Your task to perform on an android device: open a new tab in the chrome app Image 0: 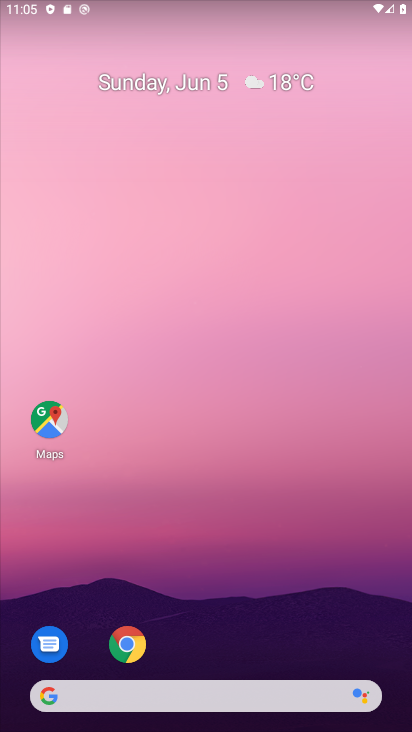
Step 0: drag from (308, 719) to (270, 207)
Your task to perform on an android device: open a new tab in the chrome app Image 1: 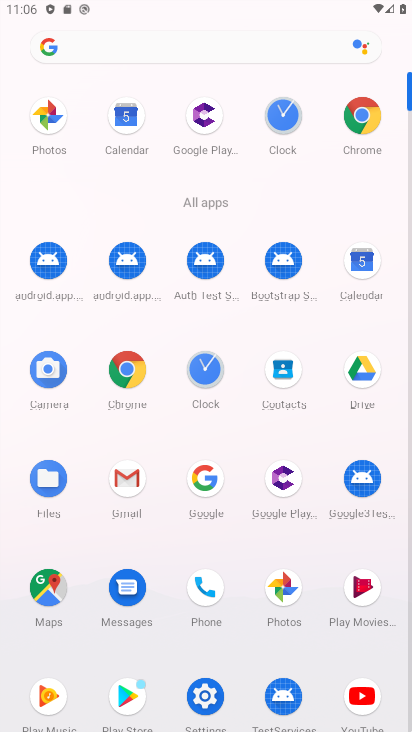
Step 1: click (125, 385)
Your task to perform on an android device: open a new tab in the chrome app Image 2: 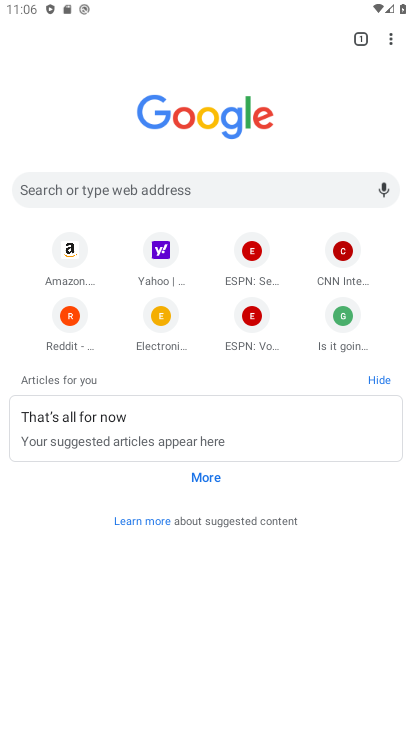
Step 2: click (388, 45)
Your task to perform on an android device: open a new tab in the chrome app Image 3: 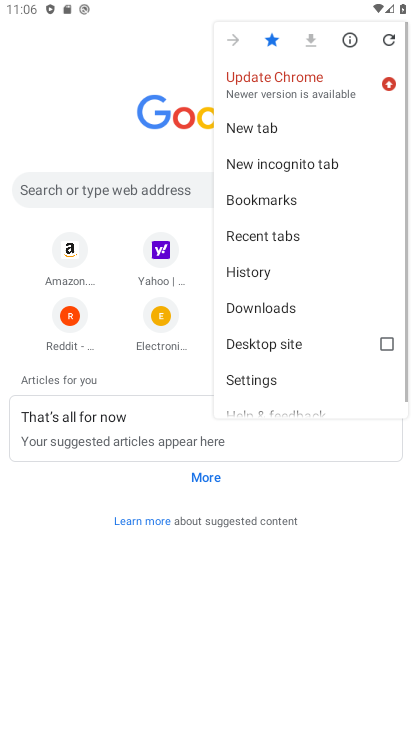
Step 3: click (226, 122)
Your task to perform on an android device: open a new tab in the chrome app Image 4: 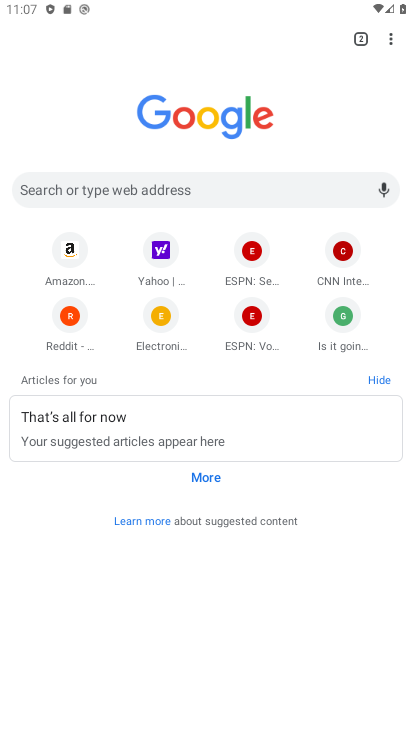
Step 4: task complete